Your task to perform on an android device: Go to ESPN.com Image 0: 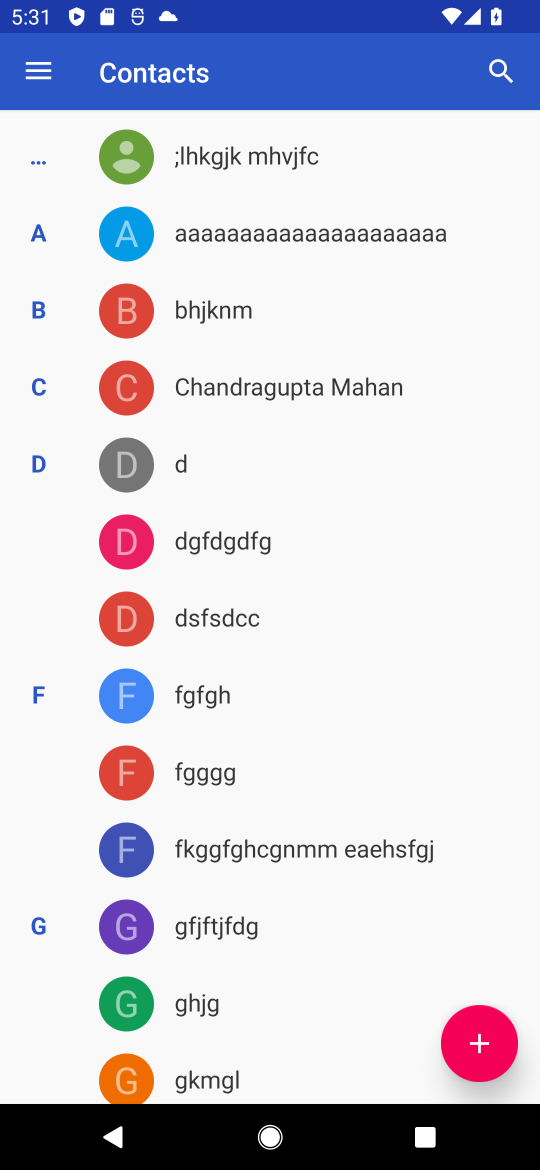
Step 0: press home button
Your task to perform on an android device: Go to ESPN.com Image 1: 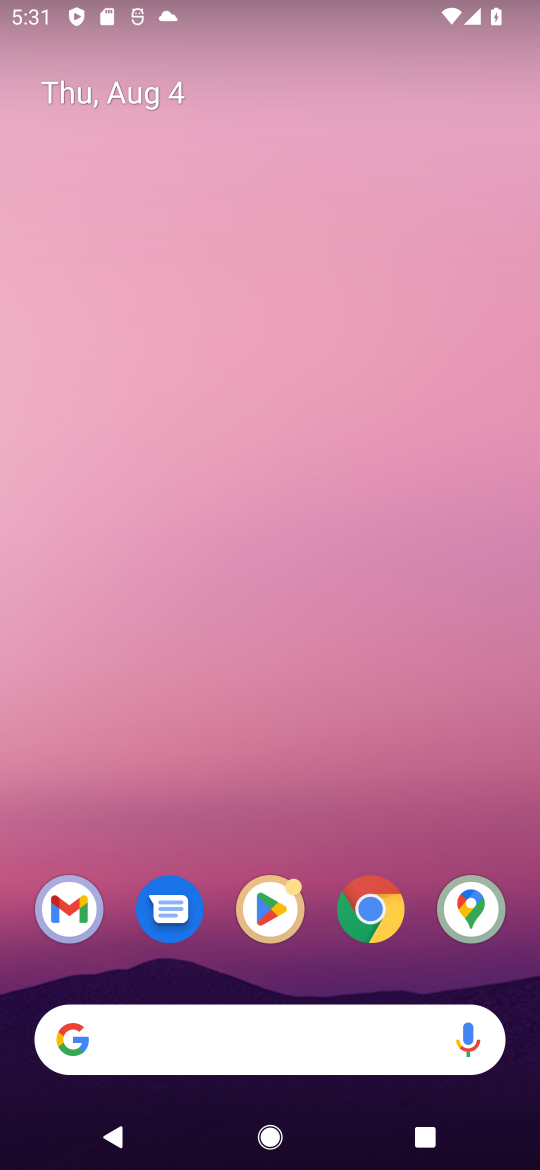
Step 1: click (366, 915)
Your task to perform on an android device: Go to ESPN.com Image 2: 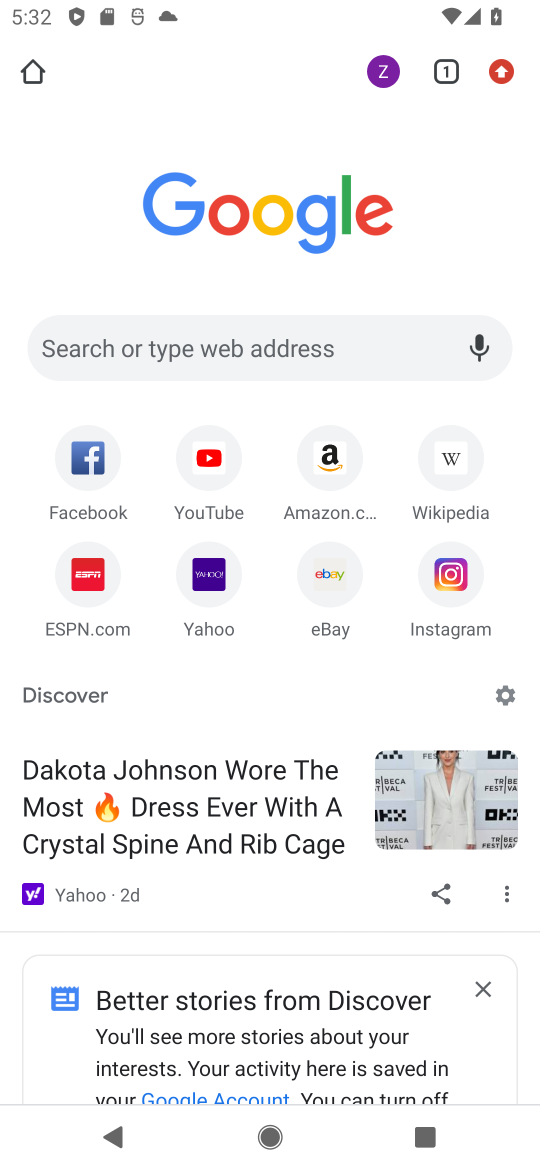
Step 2: click (100, 587)
Your task to perform on an android device: Go to ESPN.com Image 3: 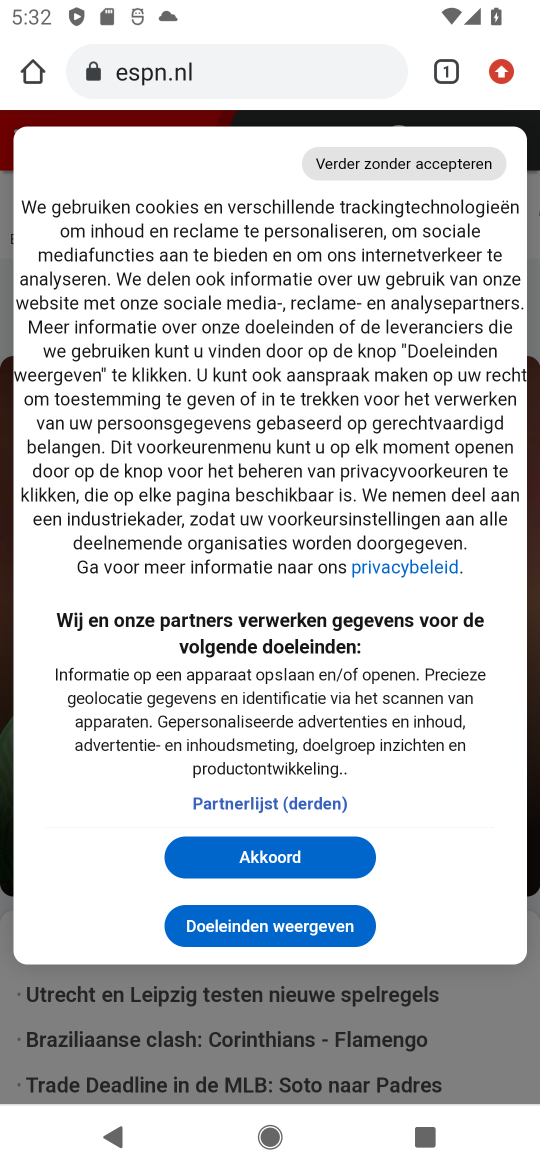
Step 3: click (302, 848)
Your task to perform on an android device: Go to ESPN.com Image 4: 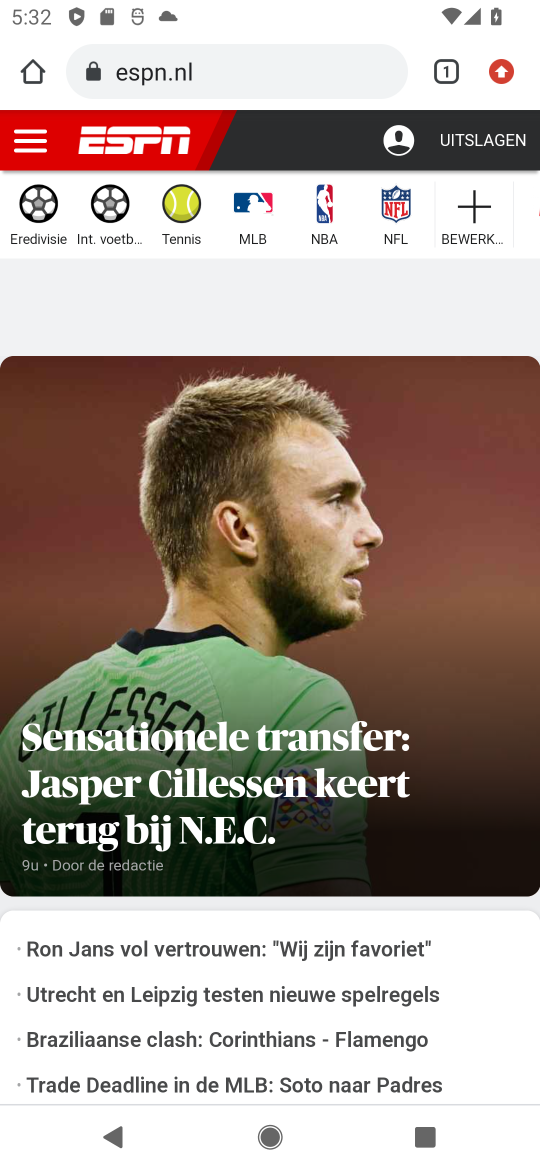
Step 4: task complete